Your task to perform on an android device: turn on data saver in the chrome app Image 0: 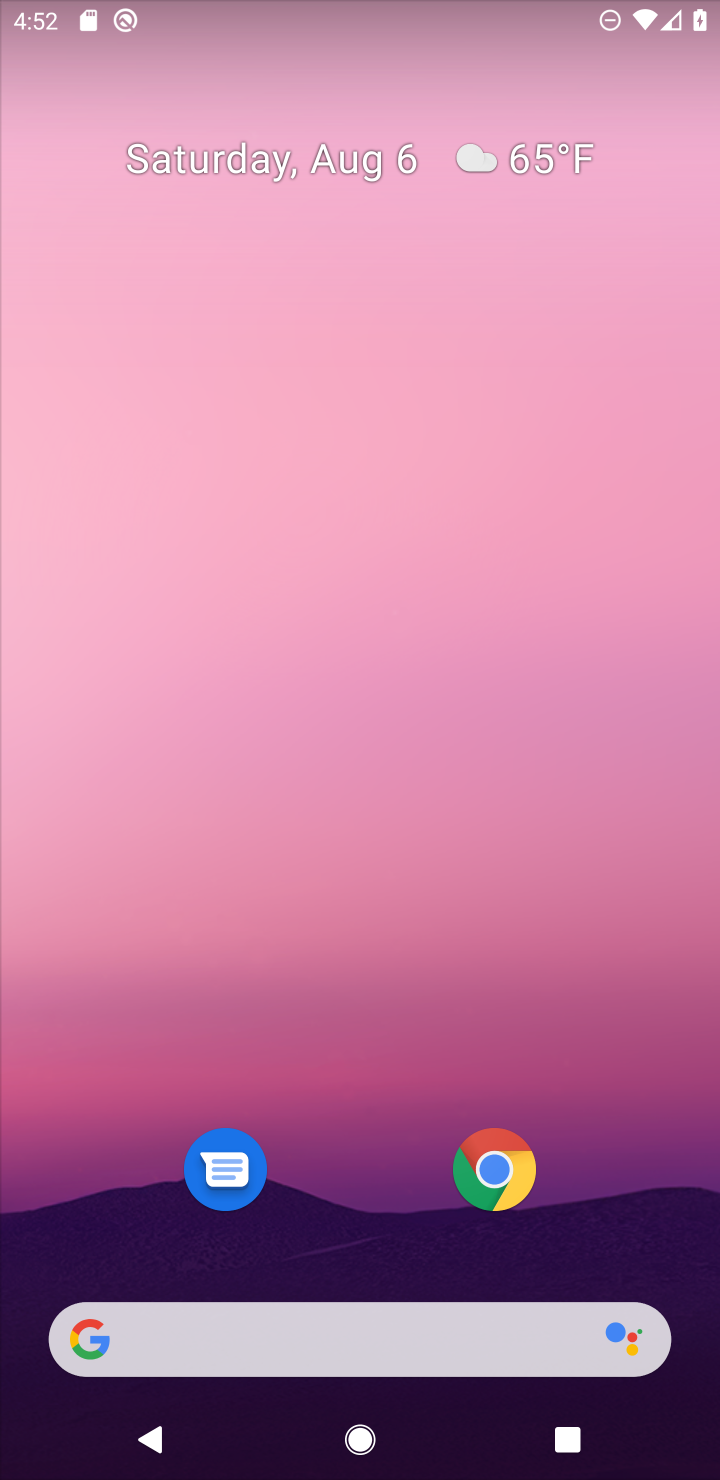
Step 0: click (497, 1189)
Your task to perform on an android device: turn on data saver in the chrome app Image 1: 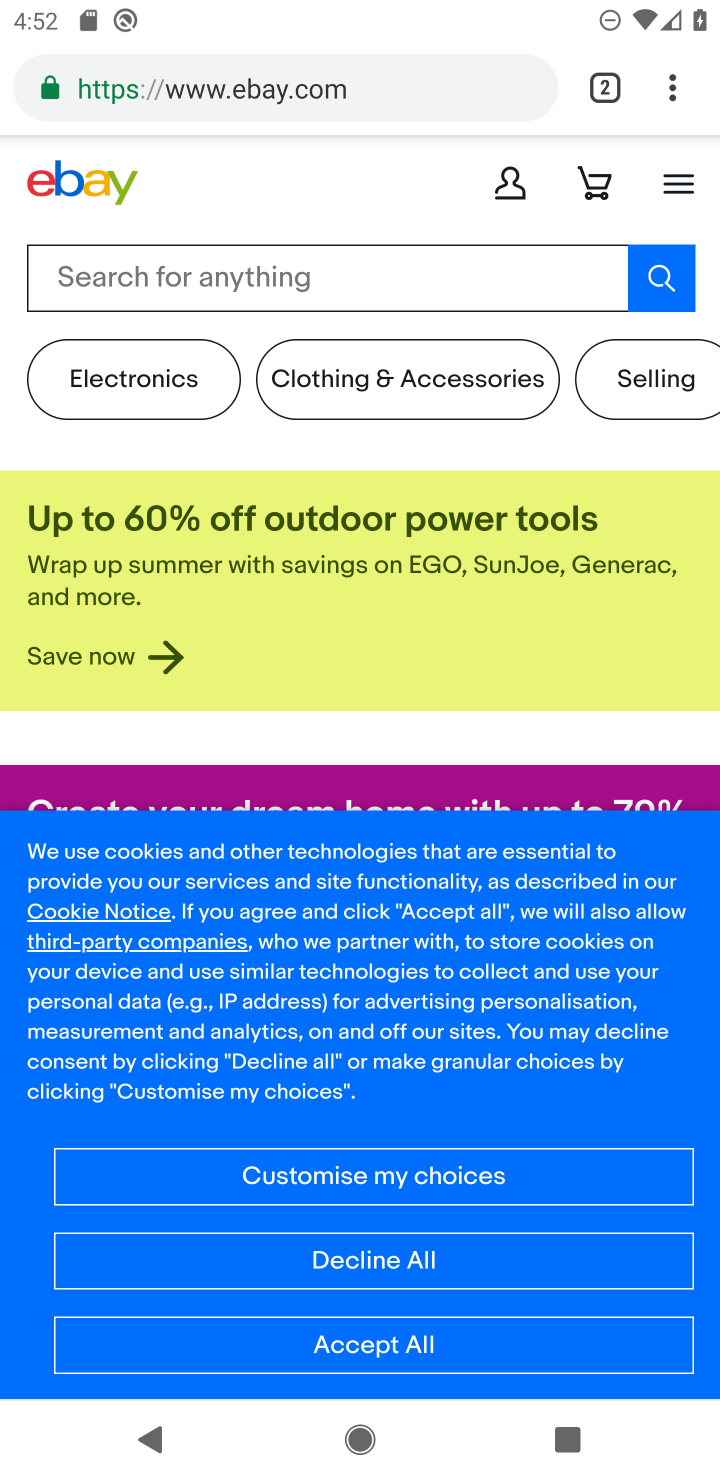
Step 1: click (690, 90)
Your task to perform on an android device: turn on data saver in the chrome app Image 2: 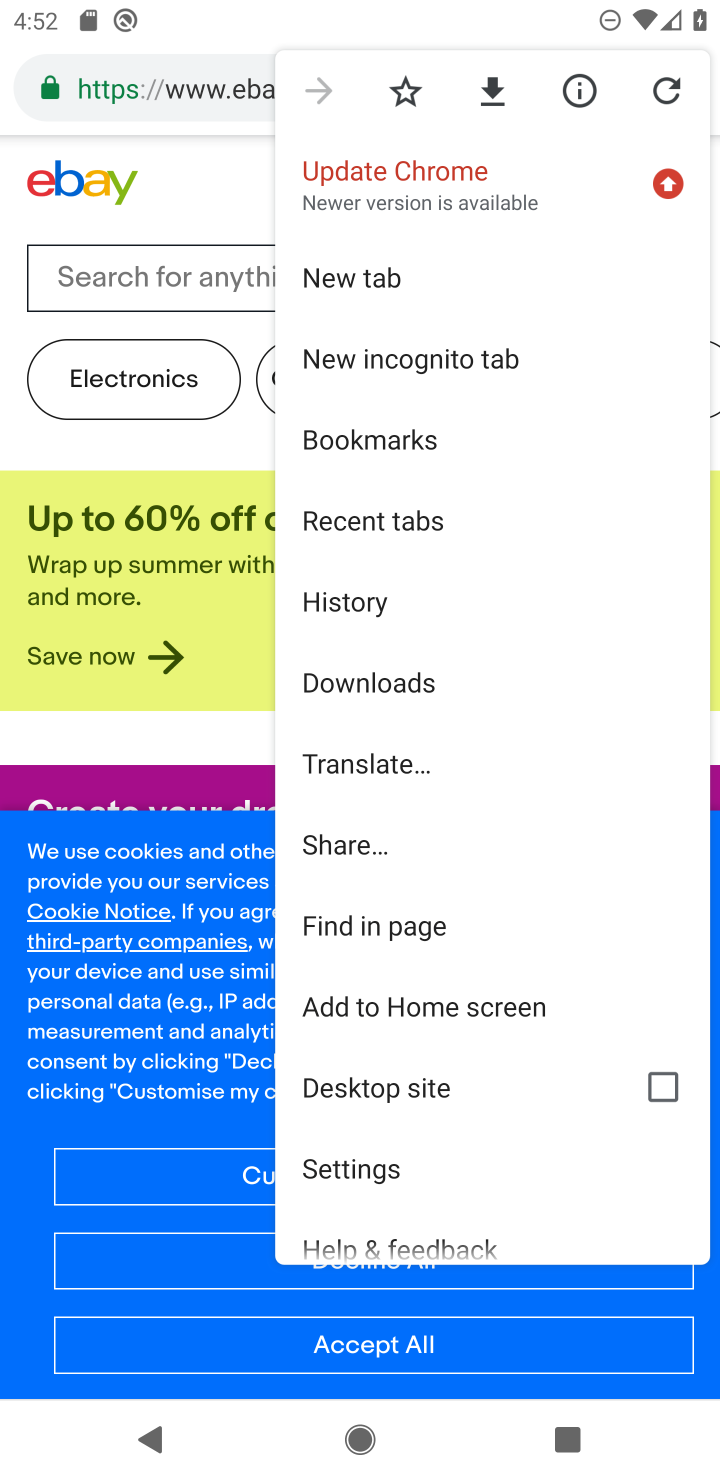
Step 2: click (457, 1154)
Your task to perform on an android device: turn on data saver in the chrome app Image 3: 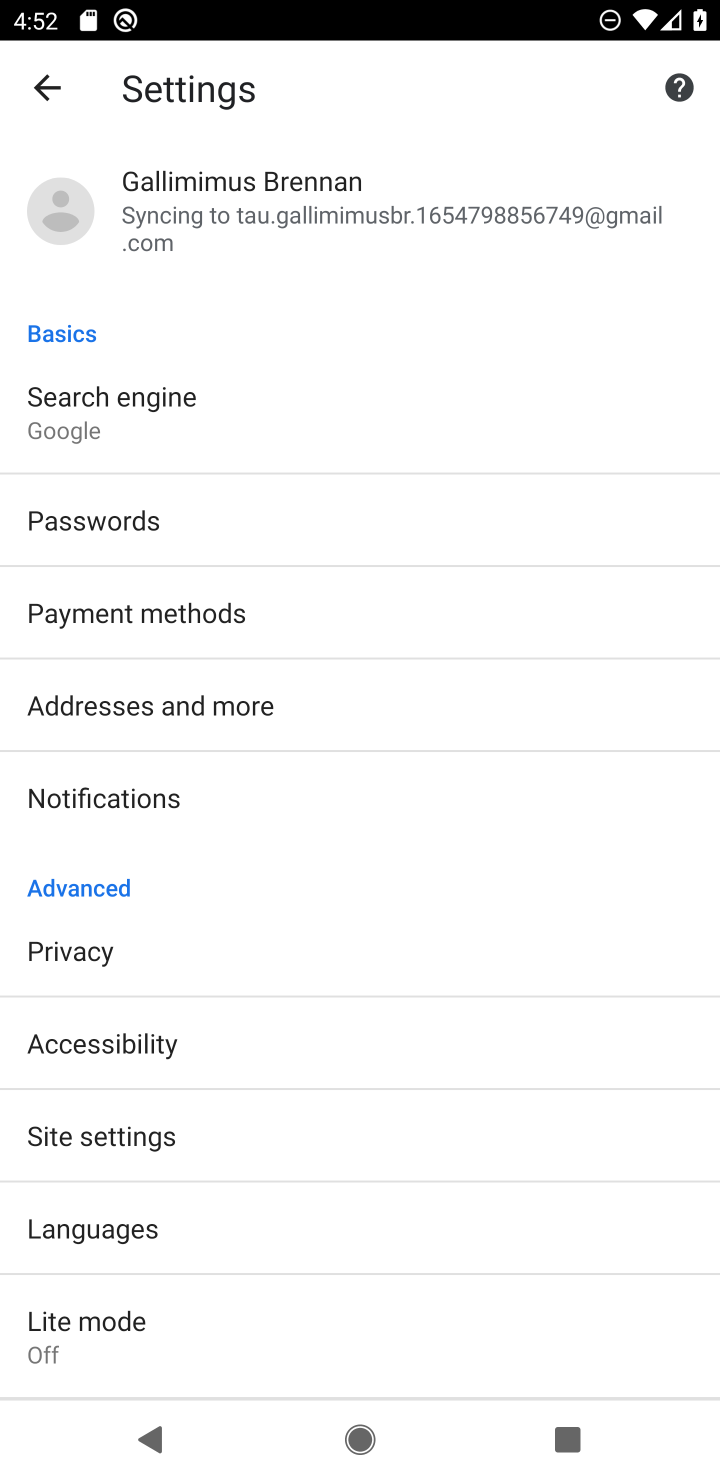
Step 3: click (304, 1348)
Your task to perform on an android device: turn on data saver in the chrome app Image 4: 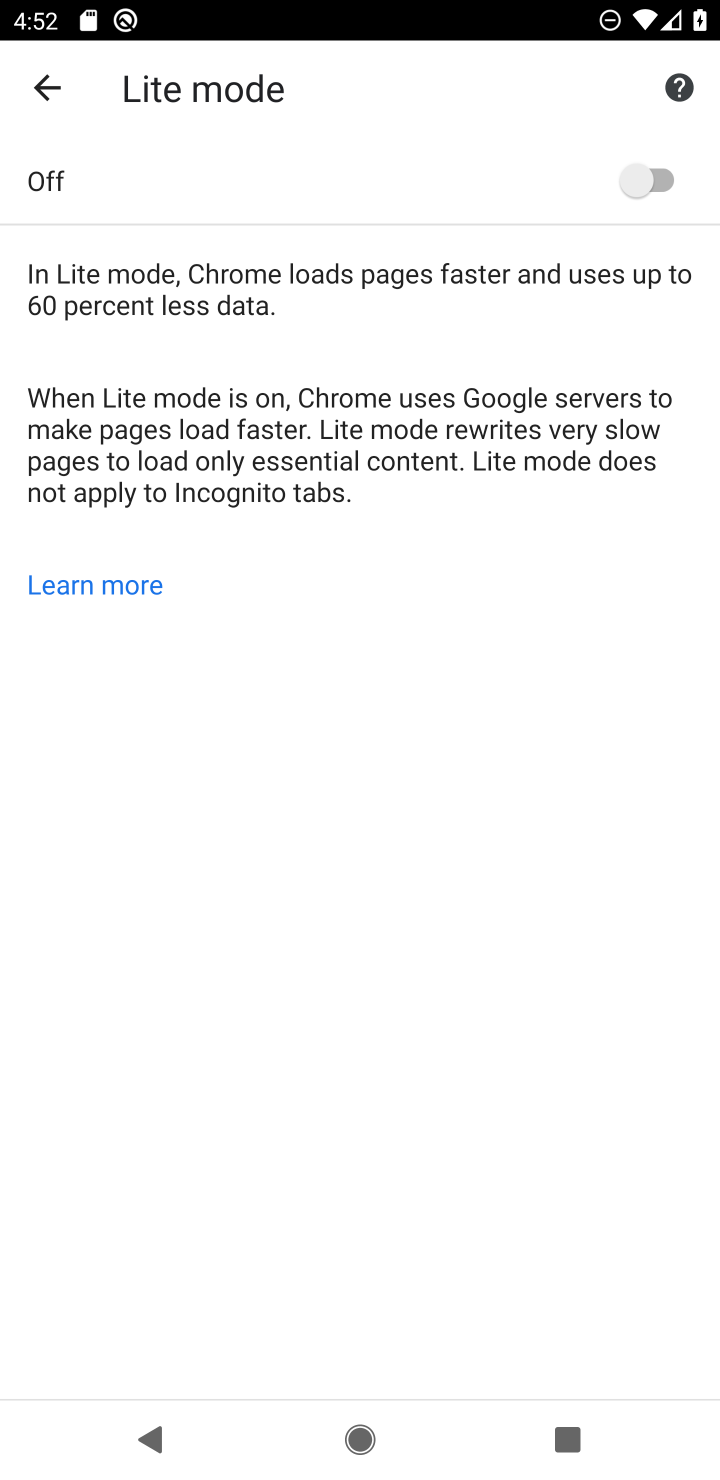
Step 4: click (621, 185)
Your task to perform on an android device: turn on data saver in the chrome app Image 5: 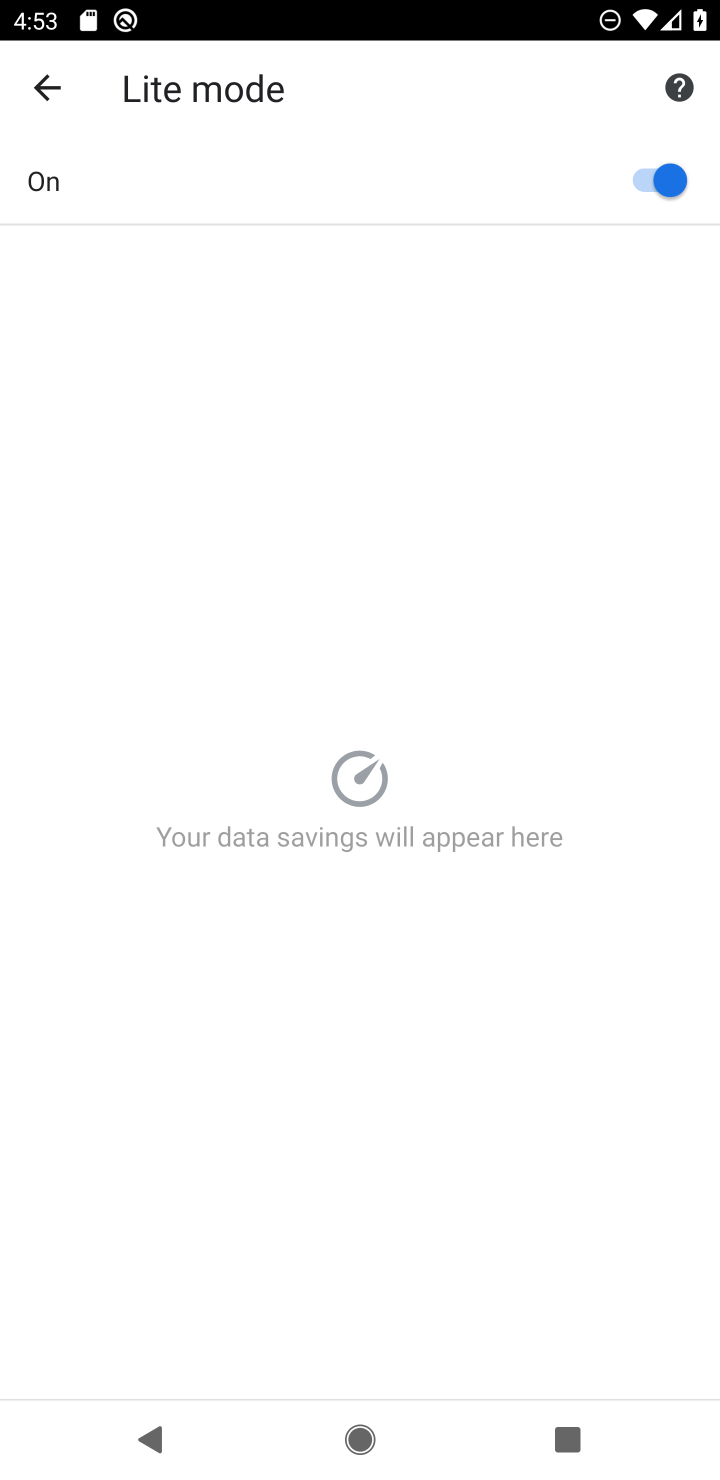
Step 5: task complete